Your task to perform on an android device: open app "Yahoo Mail" (install if not already installed) Image 0: 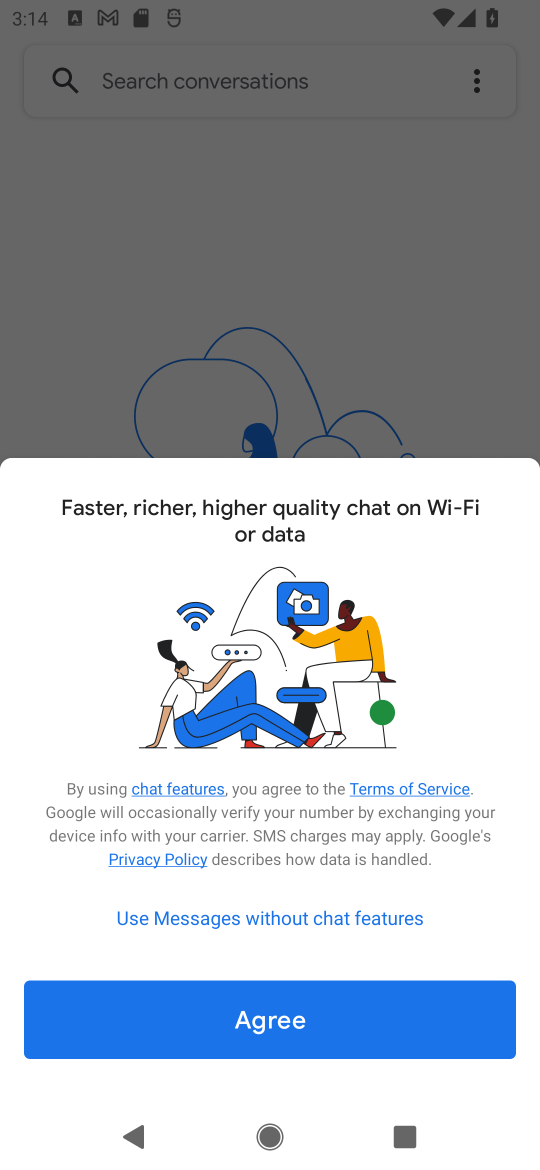
Step 0: press home button
Your task to perform on an android device: open app "Yahoo Mail" (install if not already installed) Image 1: 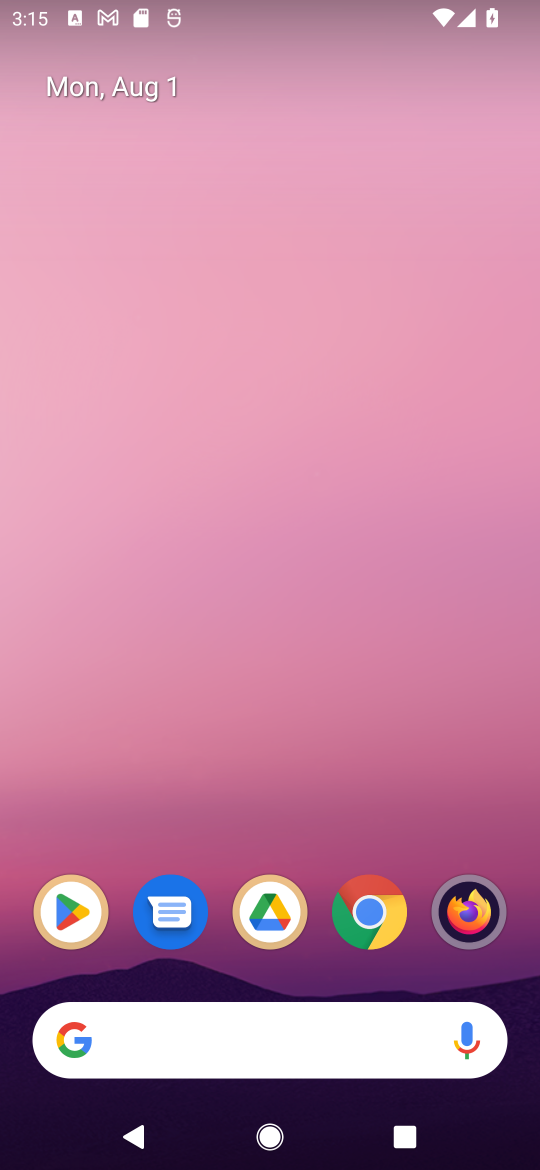
Step 1: click (82, 926)
Your task to perform on an android device: open app "Yahoo Mail" (install if not already installed) Image 2: 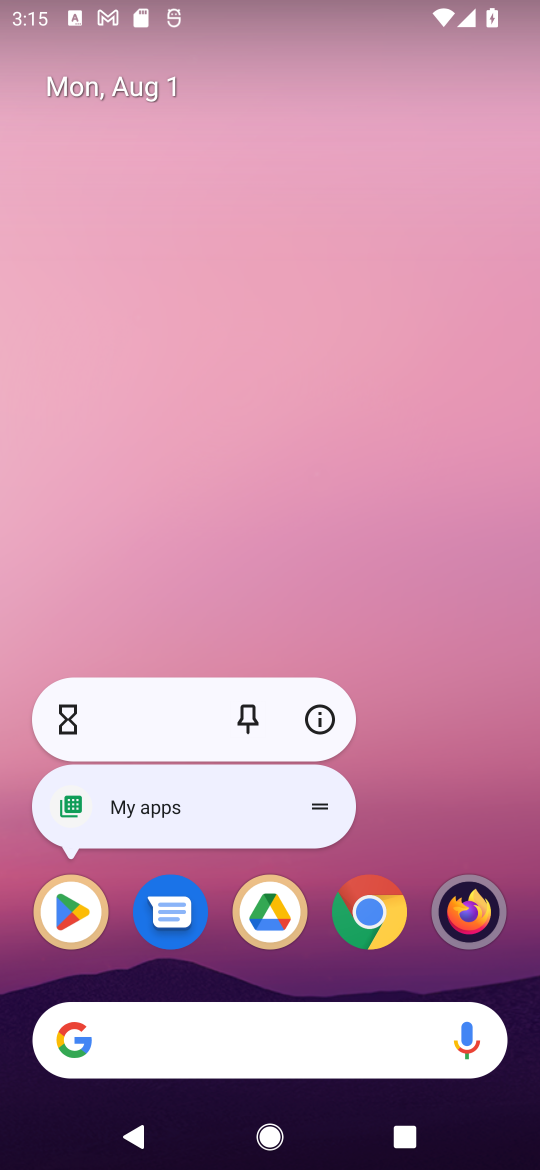
Step 2: click (73, 918)
Your task to perform on an android device: open app "Yahoo Mail" (install if not already installed) Image 3: 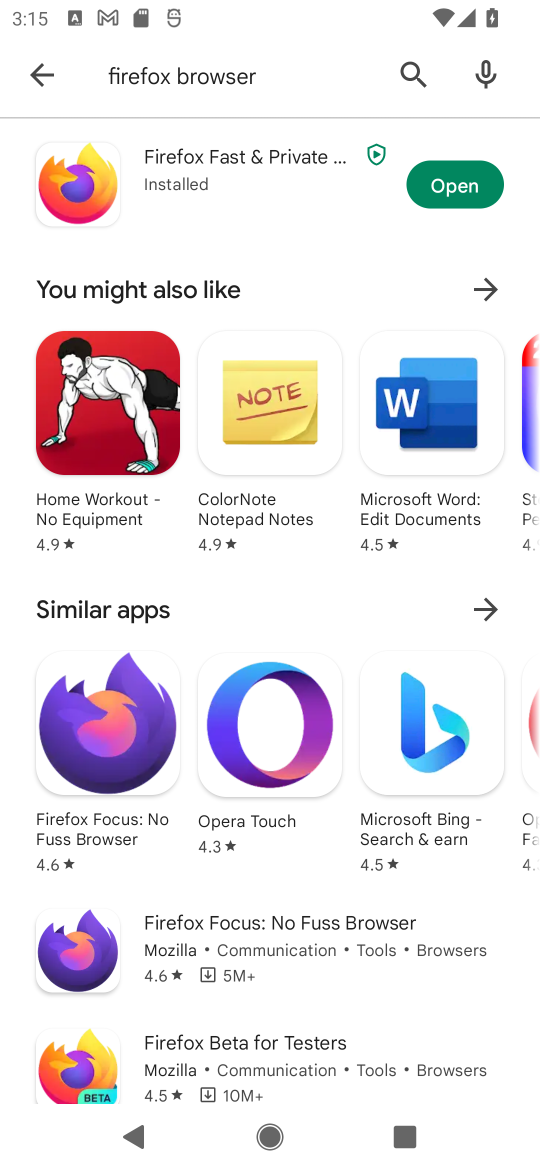
Step 3: click (396, 69)
Your task to perform on an android device: open app "Yahoo Mail" (install if not already installed) Image 4: 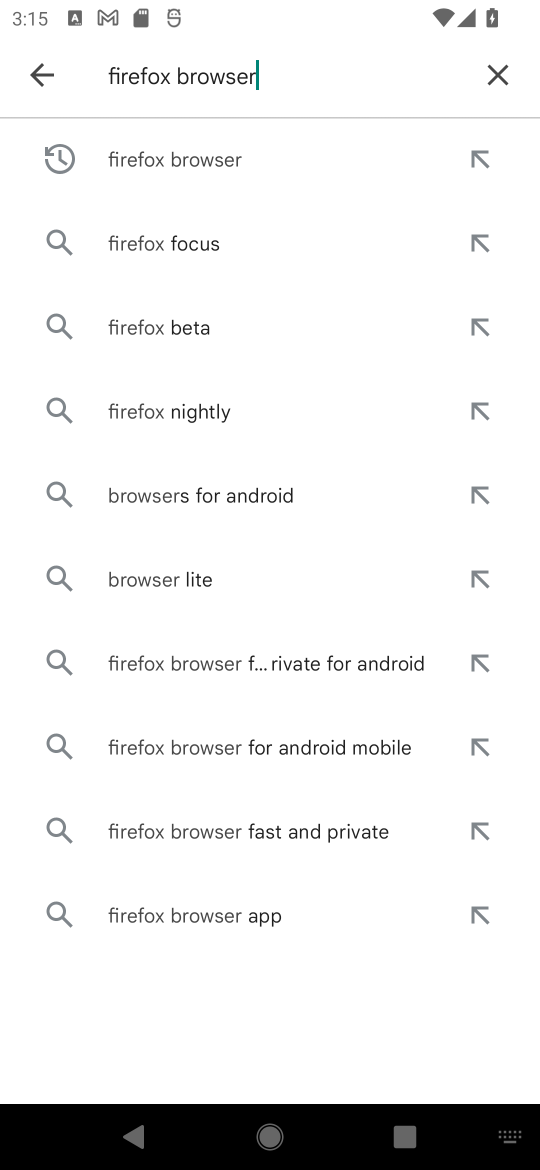
Step 4: click (507, 72)
Your task to perform on an android device: open app "Yahoo Mail" (install if not already installed) Image 5: 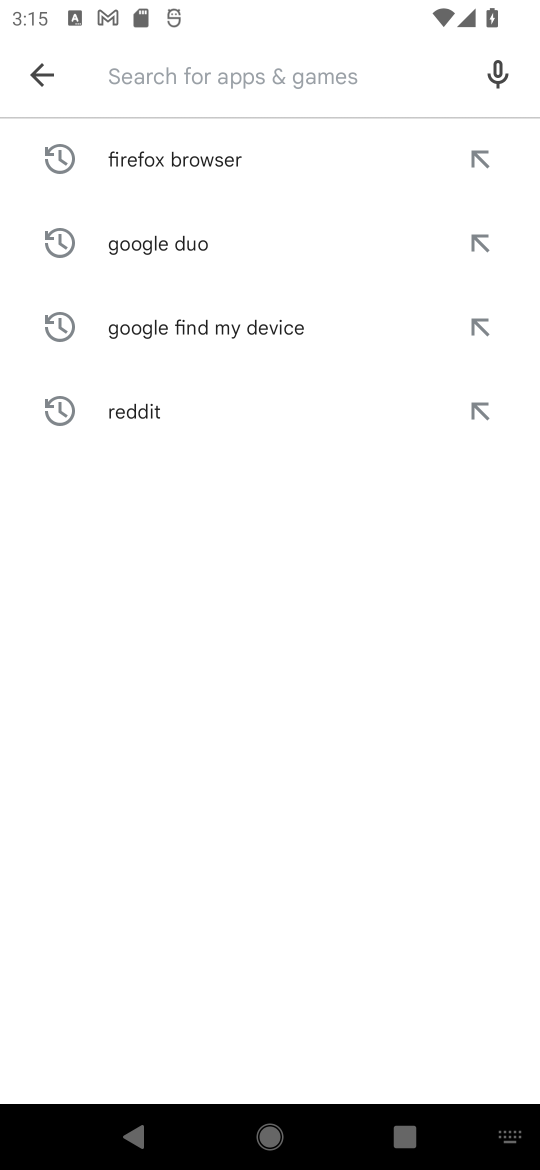
Step 5: type "Yahoo Mail"
Your task to perform on an android device: open app "Yahoo Mail" (install if not already installed) Image 6: 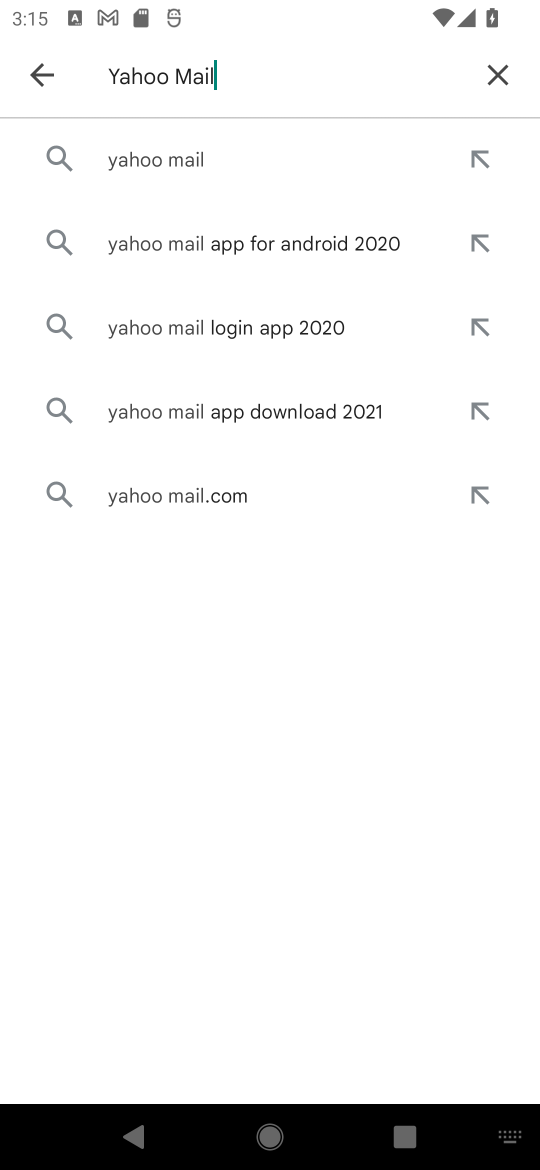
Step 6: click (178, 159)
Your task to perform on an android device: open app "Yahoo Mail" (install if not already installed) Image 7: 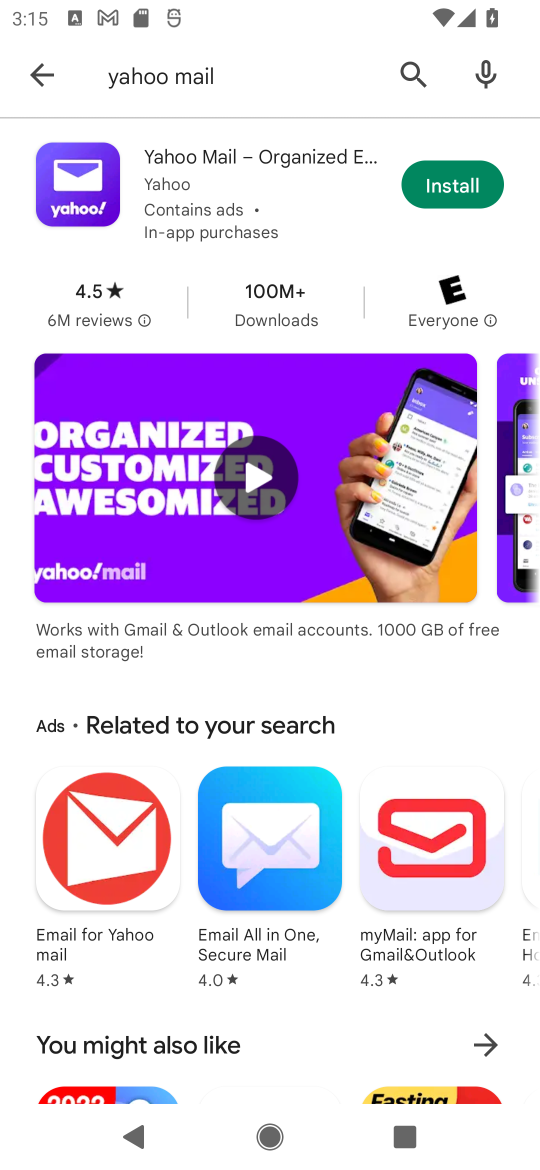
Step 7: click (474, 180)
Your task to perform on an android device: open app "Yahoo Mail" (install if not already installed) Image 8: 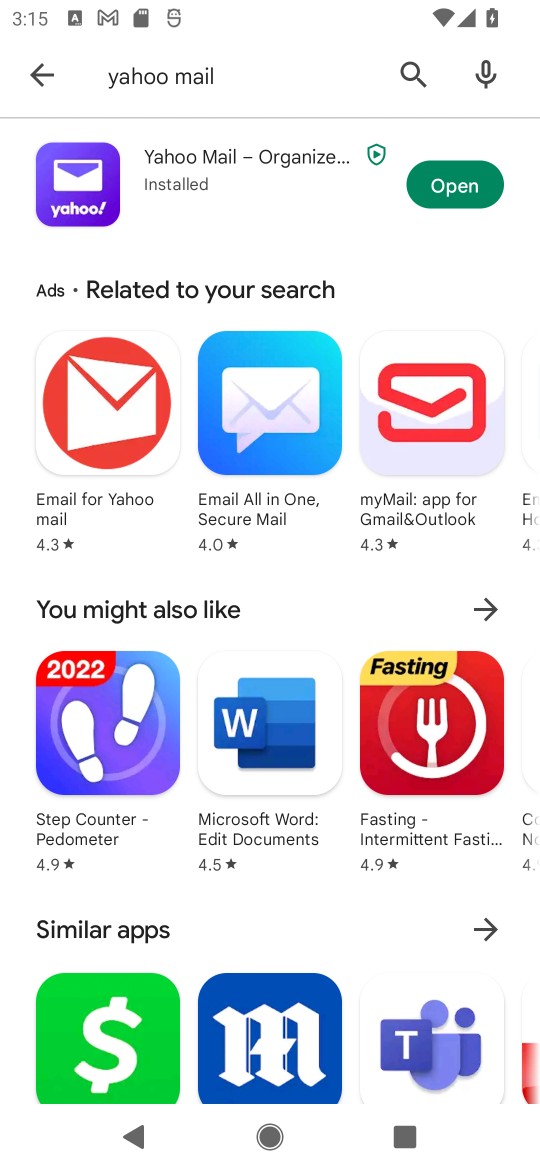
Step 8: click (464, 176)
Your task to perform on an android device: open app "Yahoo Mail" (install if not already installed) Image 9: 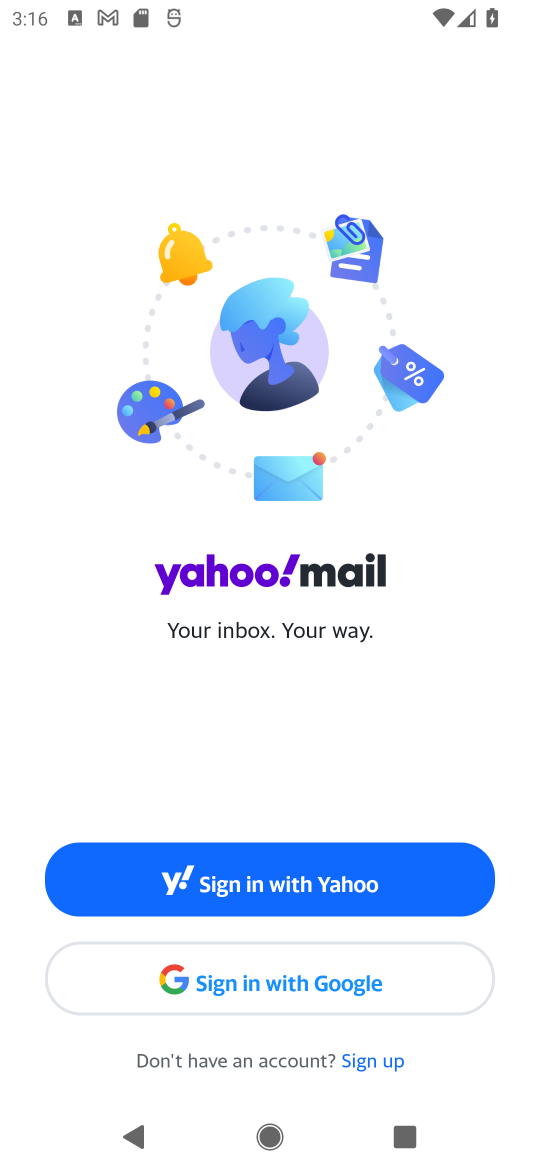
Step 9: task complete